Your task to perform on an android device: toggle show notifications on the lock screen Image 0: 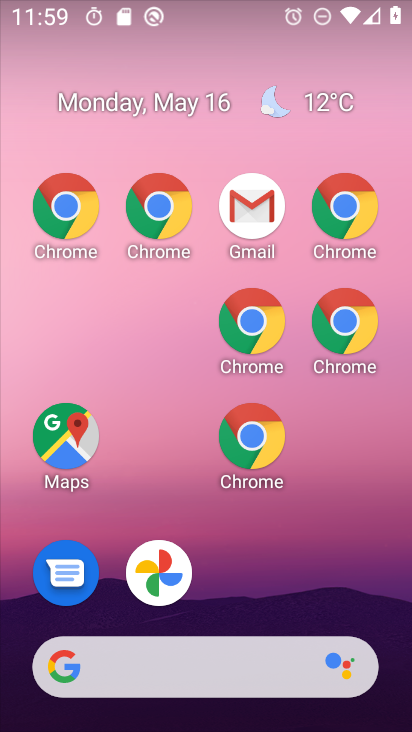
Step 0: drag from (274, 559) to (173, 24)
Your task to perform on an android device: toggle show notifications on the lock screen Image 1: 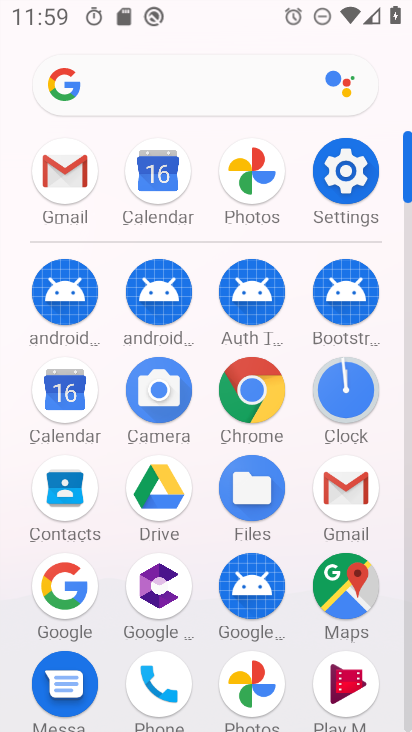
Step 1: click (352, 183)
Your task to perform on an android device: toggle show notifications on the lock screen Image 2: 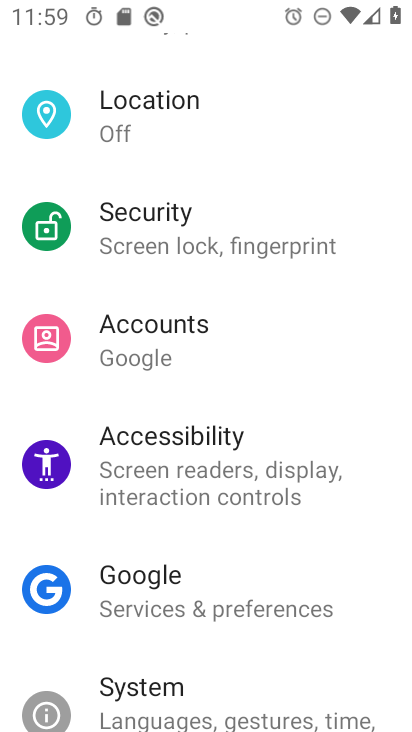
Step 2: drag from (217, 581) to (120, 1)
Your task to perform on an android device: toggle show notifications on the lock screen Image 3: 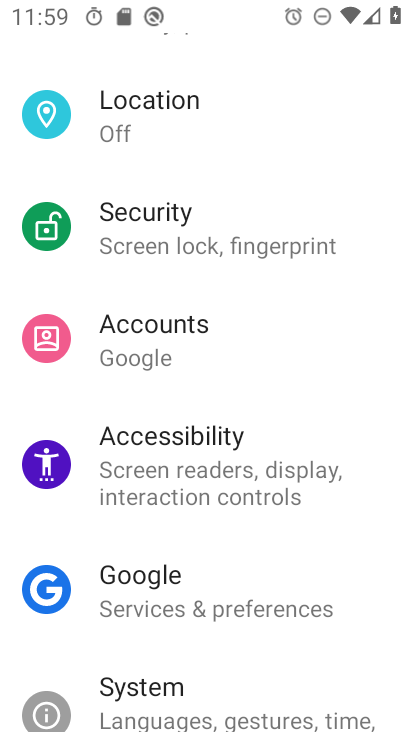
Step 3: drag from (191, 311) to (173, 6)
Your task to perform on an android device: toggle show notifications on the lock screen Image 4: 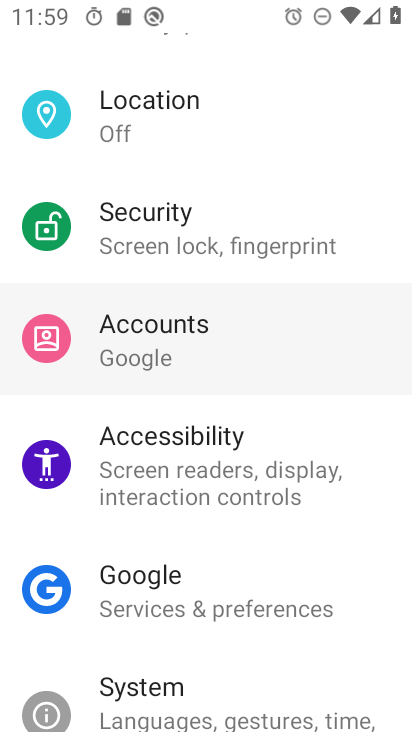
Step 4: drag from (247, 574) to (224, 119)
Your task to perform on an android device: toggle show notifications on the lock screen Image 5: 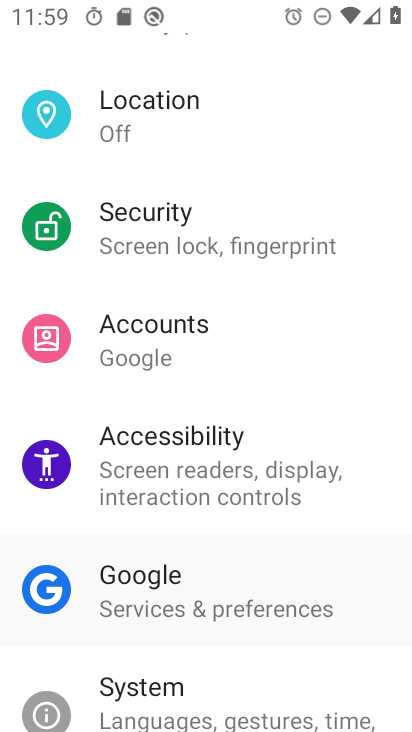
Step 5: drag from (267, 509) to (199, 86)
Your task to perform on an android device: toggle show notifications on the lock screen Image 6: 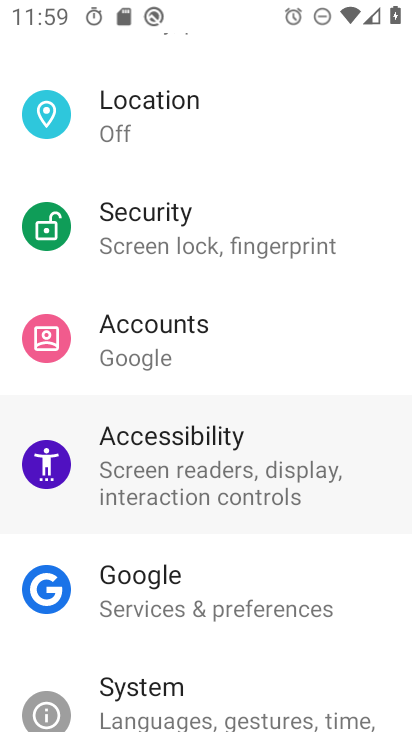
Step 6: drag from (321, 672) to (295, 133)
Your task to perform on an android device: toggle show notifications on the lock screen Image 7: 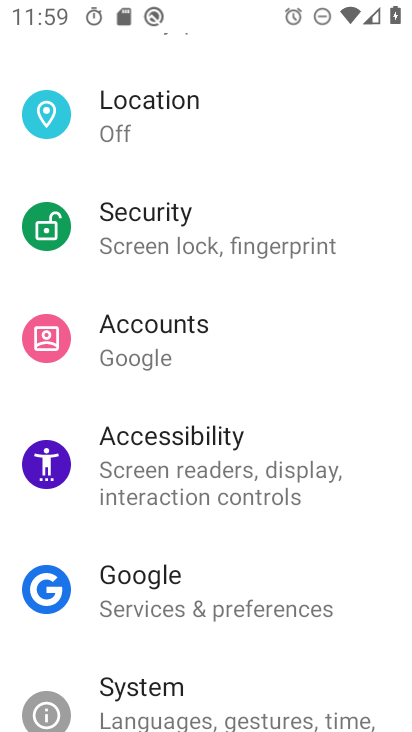
Step 7: drag from (336, 552) to (363, 217)
Your task to perform on an android device: toggle show notifications on the lock screen Image 8: 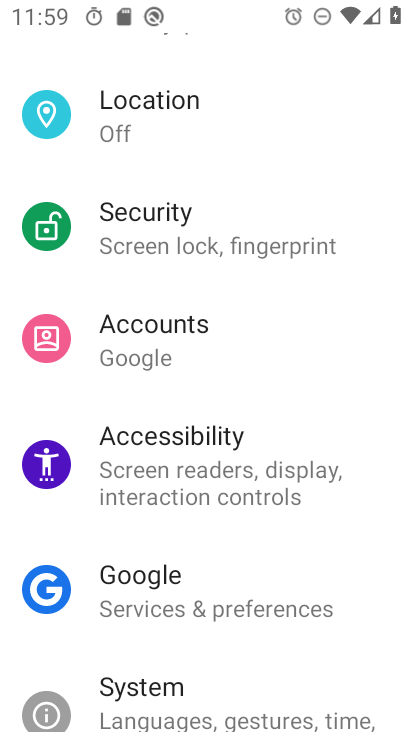
Step 8: drag from (281, 543) to (223, 183)
Your task to perform on an android device: toggle show notifications on the lock screen Image 9: 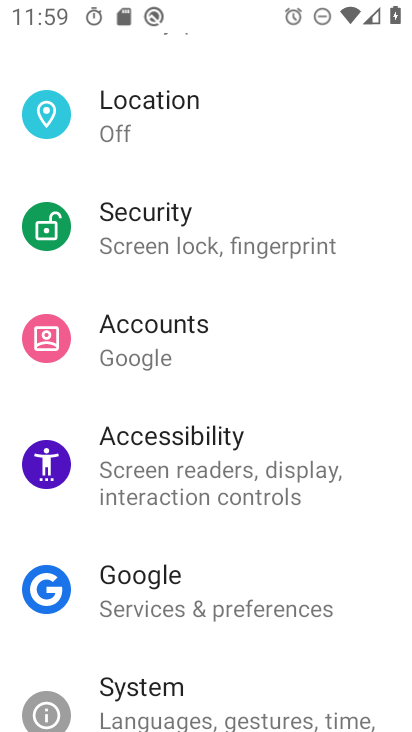
Step 9: drag from (196, 173) to (226, 522)
Your task to perform on an android device: toggle show notifications on the lock screen Image 10: 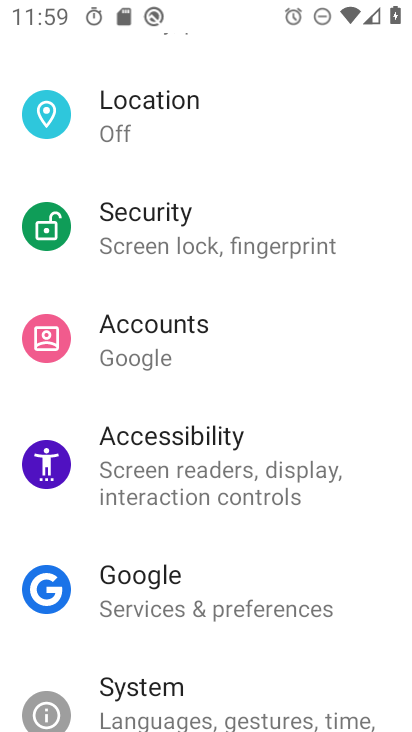
Step 10: drag from (138, 244) to (209, 595)
Your task to perform on an android device: toggle show notifications on the lock screen Image 11: 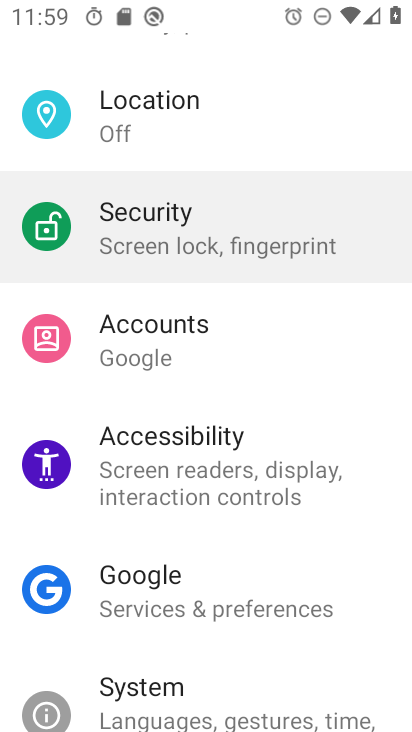
Step 11: drag from (163, 213) to (220, 400)
Your task to perform on an android device: toggle show notifications on the lock screen Image 12: 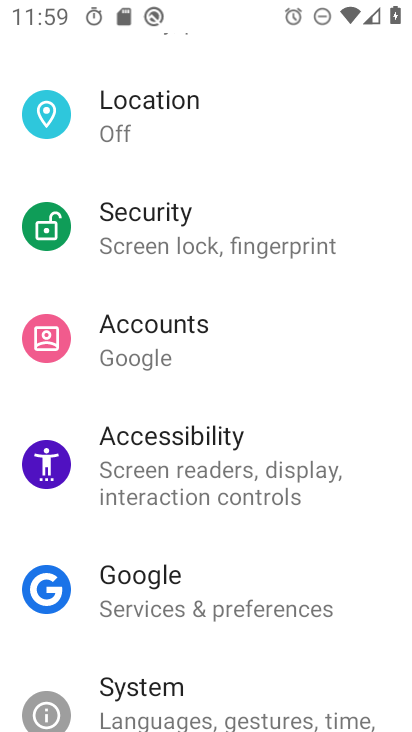
Step 12: drag from (157, 137) to (190, 466)
Your task to perform on an android device: toggle show notifications on the lock screen Image 13: 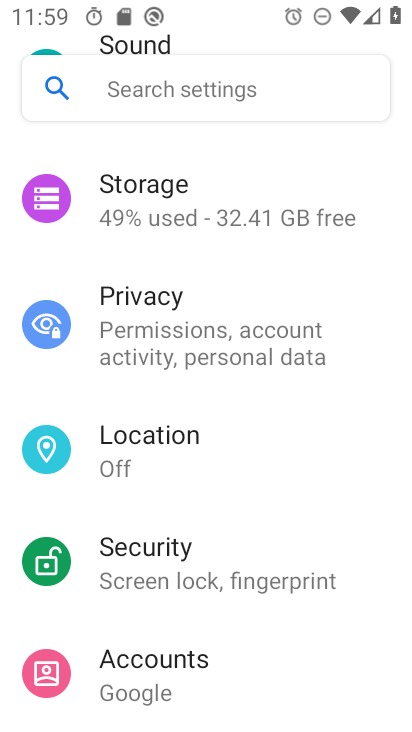
Step 13: drag from (208, 207) to (230, 573)
Your task to perform on an android device: toggle show notifications on the lock screen Image 14: 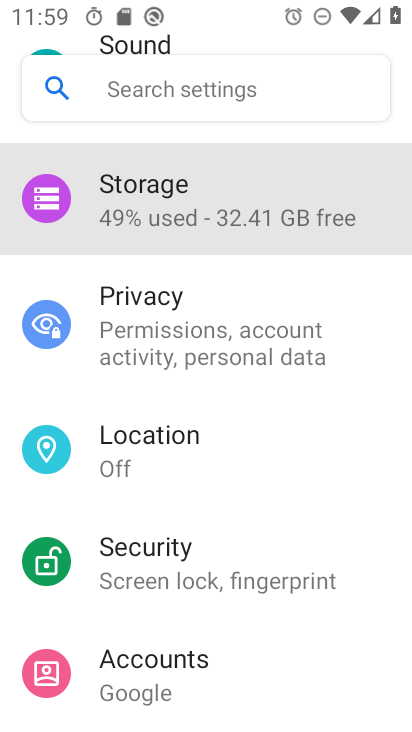
Step 14: drag from (65, 160) to (168, 438)
Your task to perform on an android device: toggle show notifications on the lock screen Image 15: 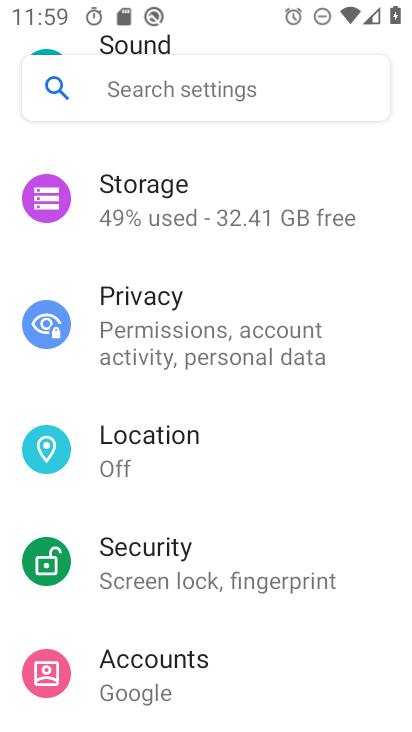
Step 15: drag from (133, 260) to (261, 443)
Your task to perform on an android device: toggle show notifications on the lock screen Image 16: 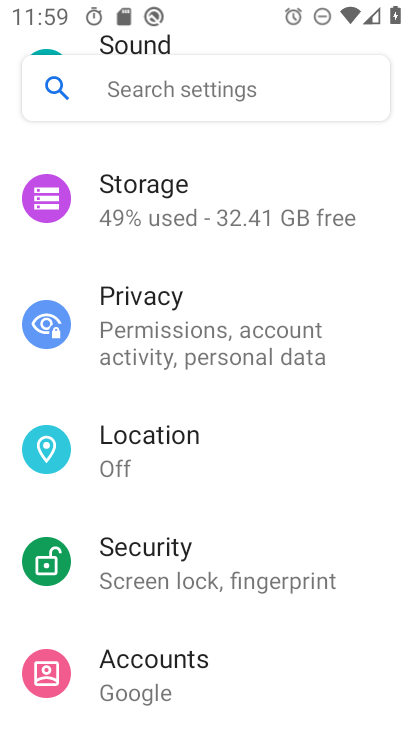
Step 16: drag from (217, 208) to (294, 468)
Your task to perform on an android device: toggle show notifications on the lock screen Image 17: 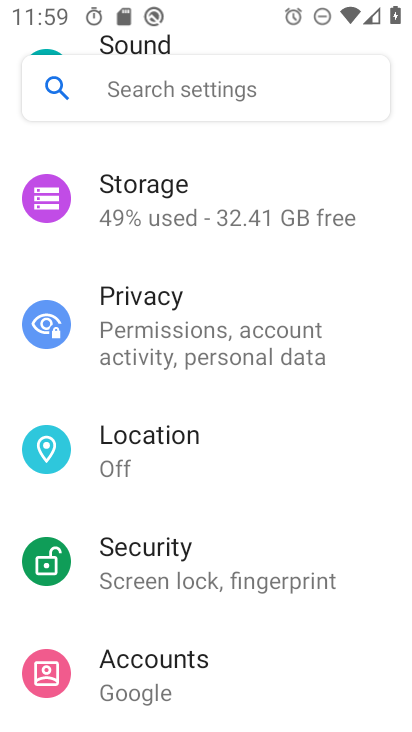
Step 17: drag from (199, 217) to (285, 465)
Your task to perform on an android device: toggle show notifications on the lock screen Image 18: 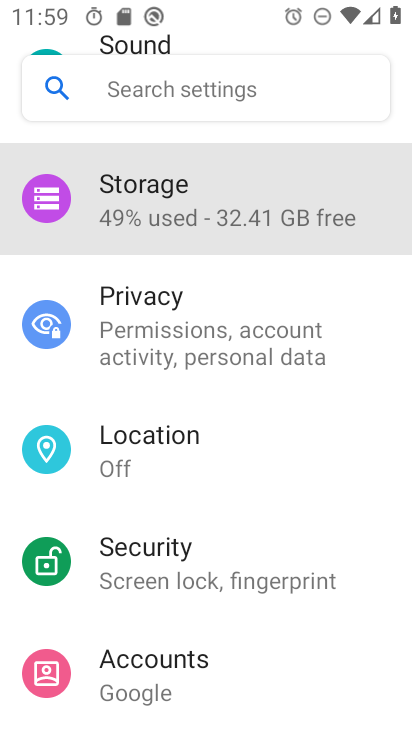
Step 18: drag from (176, 196) to (224, 481)
Your task to perform on an android device: toggle show notifications on the lock screen Image 19: 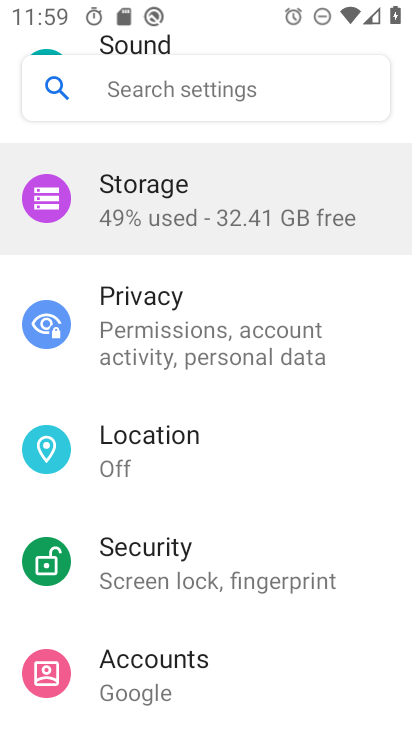
Step 19: drag from (200, 290) to (192, 485)
Your task to perform on an android device: toggle show notifications on the lock screen Image 20: 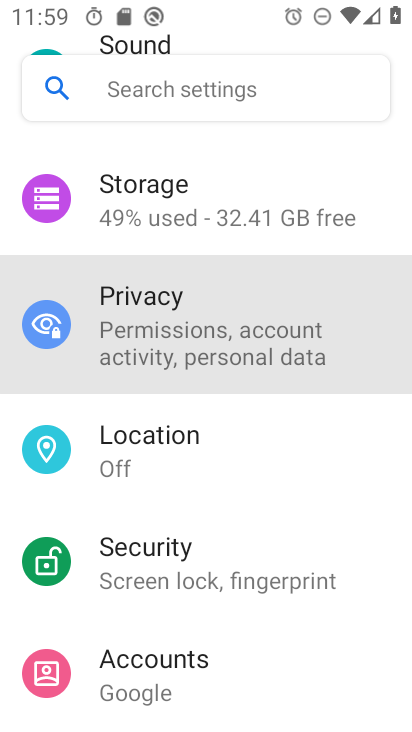
Step 20: drag from (130, 279) to (241, 538)
Your task to perform on an android device: toggle show notifications on the lock screen Image 21: 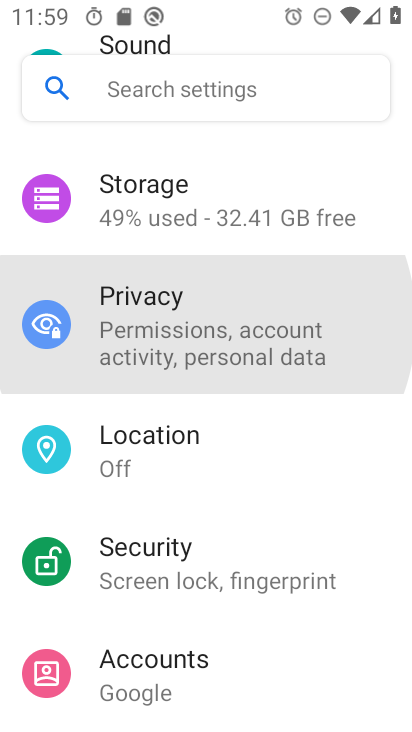
Step 21: drag from (218, 308) to (279, 410)
Your task to perform on an android device: toggle show notifications on the lock screen Image 22: 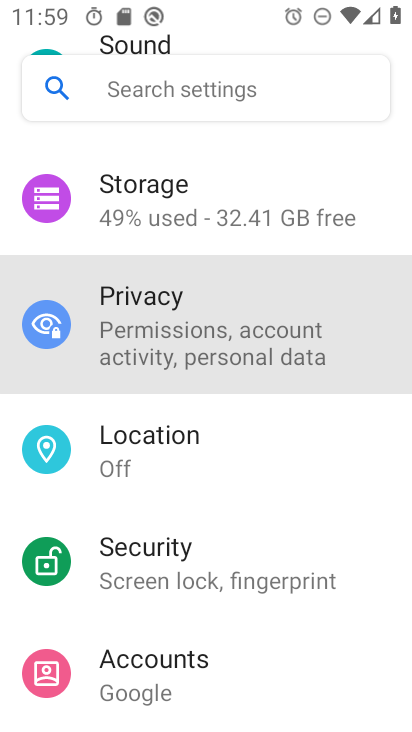
Step 22: drag from (223, 242) to (285, 511)
Your task to perform on an android device: toggle show notifications on the lock screen Image 23: 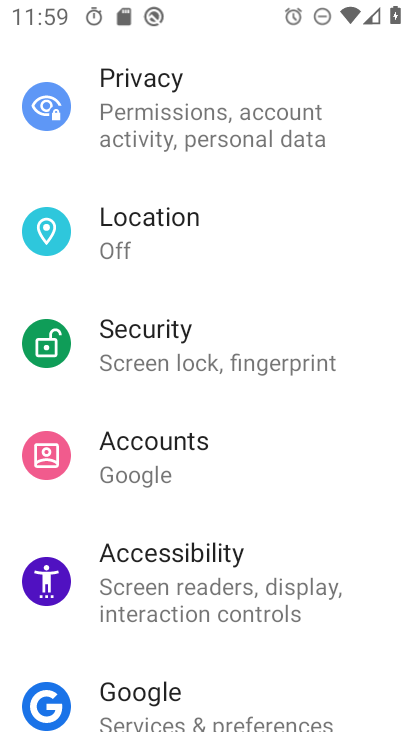
Step 23: drag from (229, 269) to (255, 717)
Your task to perform on an android device: toggle show notifications on the lock screen Image 24: 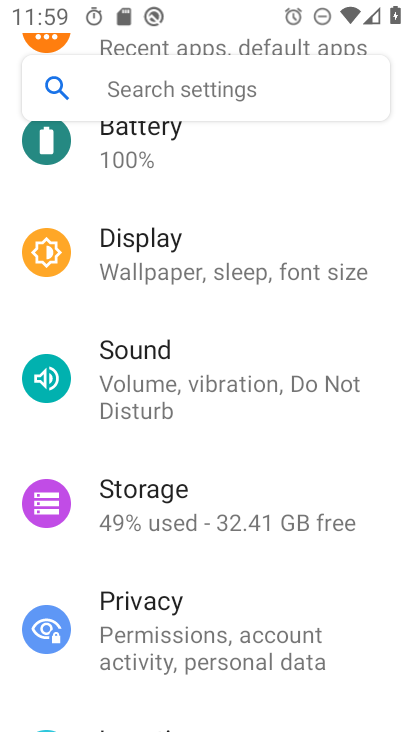
Step 24: drag from (186, 233) to (266, 497)
Your task to perform on an android device: toggle show notifications on the lock screen Image 25: 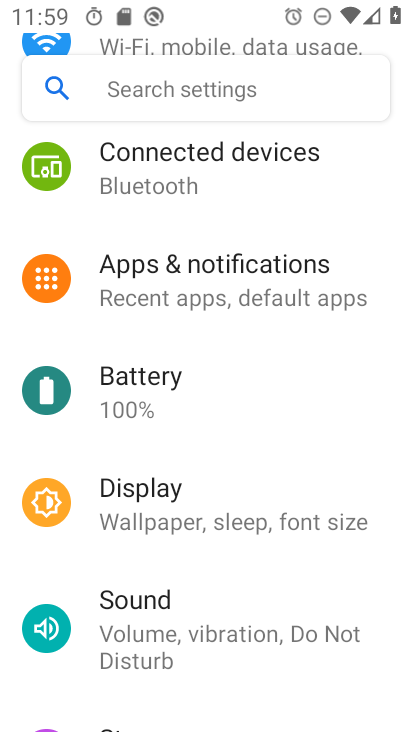
Step 25: drag from (184, 230) to (267, 504)
Your task to perform on an android device: toggle show notifications on the lock screen Image 26: 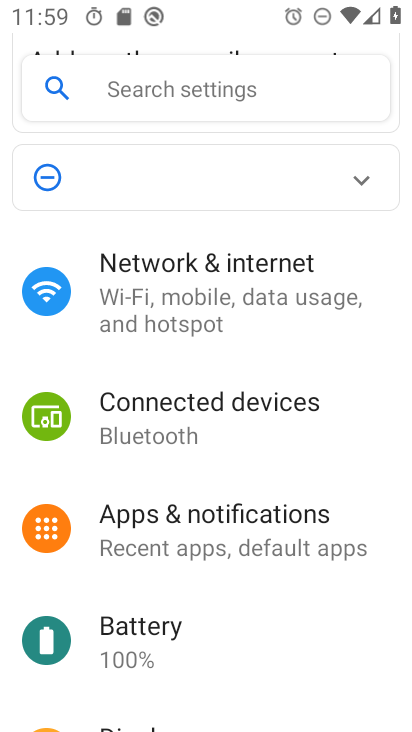
Step 26: click (261, 522)
Your task to perform on an android device: toggle show notifications on the lock screen Image 27: 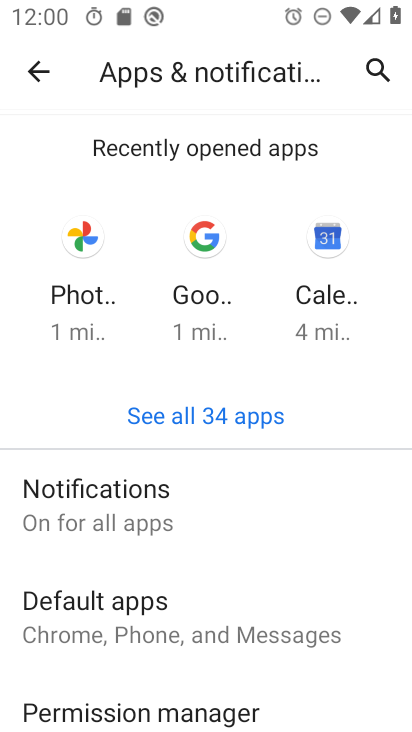
Step 27: click (55, 489)
Your task to perform on an android device: toggle show notifications on the lock screen Image 28: 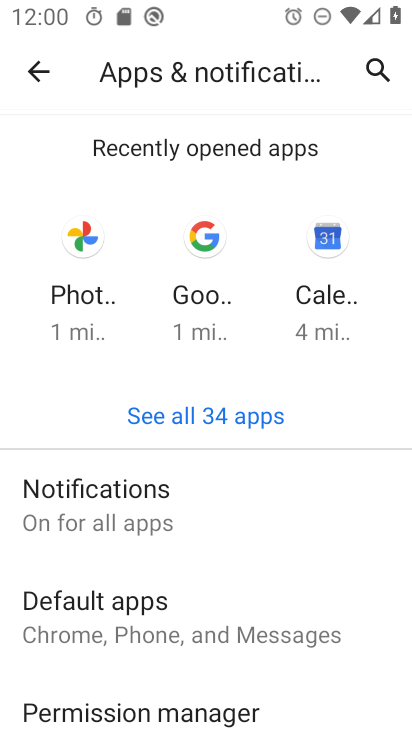
Step 28: click (55, 487)
Your task to perform on an android device: toggle show notifications on the lock screen Image 29: 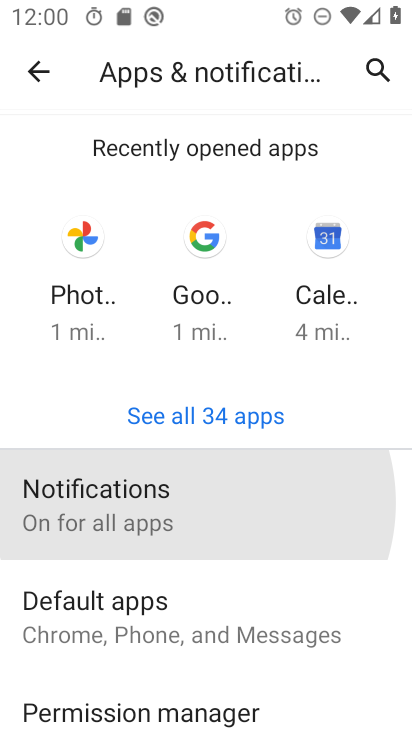
Step 29: click (56, 482)
Your task to perform on an android device: toggle show notifications on the lock screen Image 30: 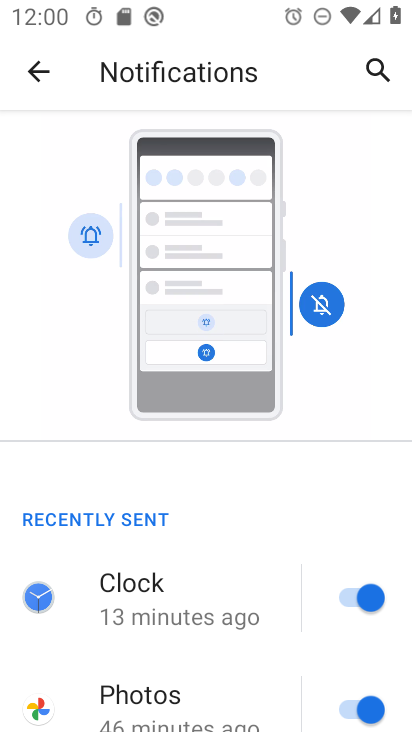
Step 30: drag from (225, 583) to (240, 250)
Your task to perform on an android device: toggle show notifications on the lock screen Image 31: 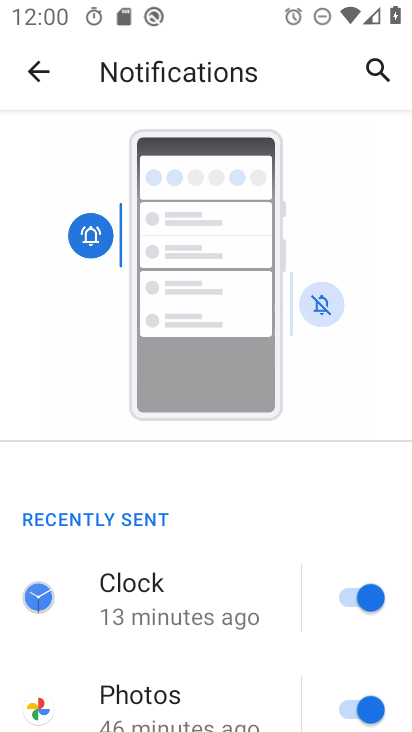
Step 31: drag from (308, 562) to (279, 239)
Your task to perform on an android device: toggle show notifications on the lock screen Image 32: 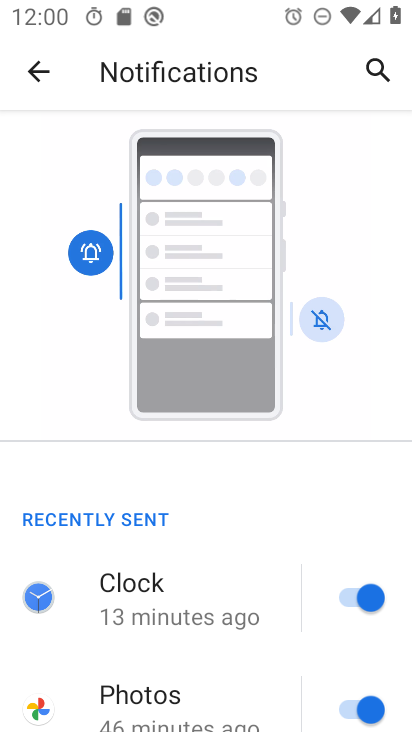
Step 32: drag from (267, 560) to (297, 70)
Your task to perform on an android device: toggle show notifications on the lock screen Image 33: 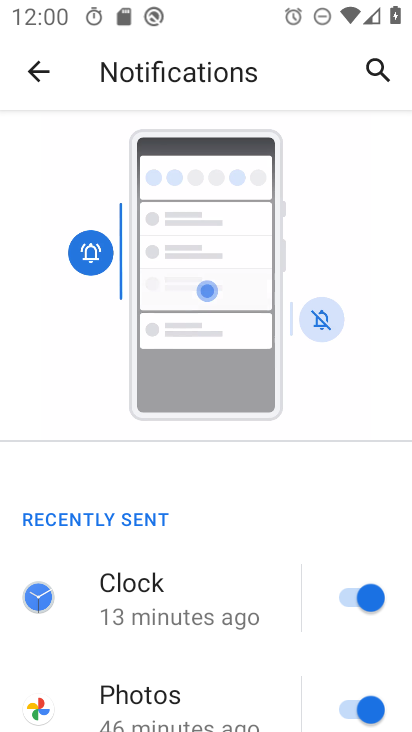
Step 33: drag from (281, 589) to (258, 198)
Your task to perform on an android device: toggle show notifications on the lock screen Image 34: 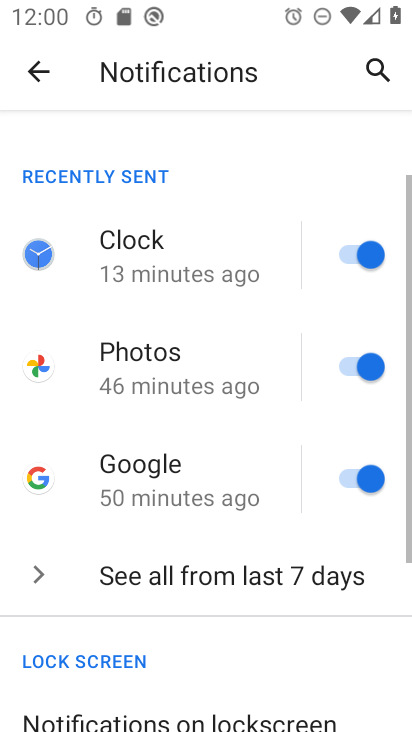
Step 34: drag from (211, 667) to (190, 241)
Your task to perform on an android device: toggle show notifications on the lock screen Image 35: 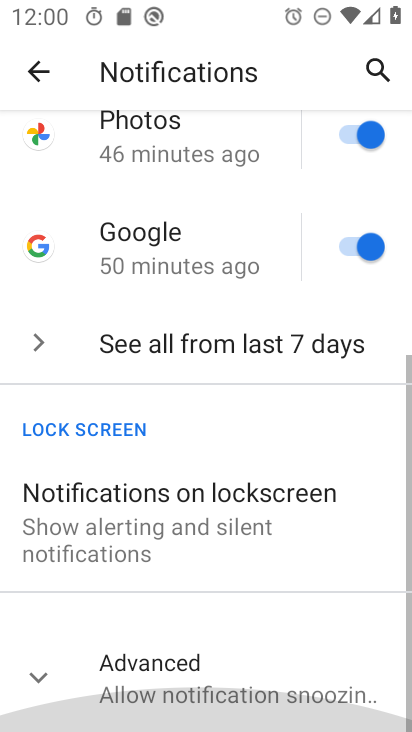
Step 35: drag from (269, 560) to (216, 74)
Your task to perform on an android device: toggle show notifications on the lock screen Image 36: 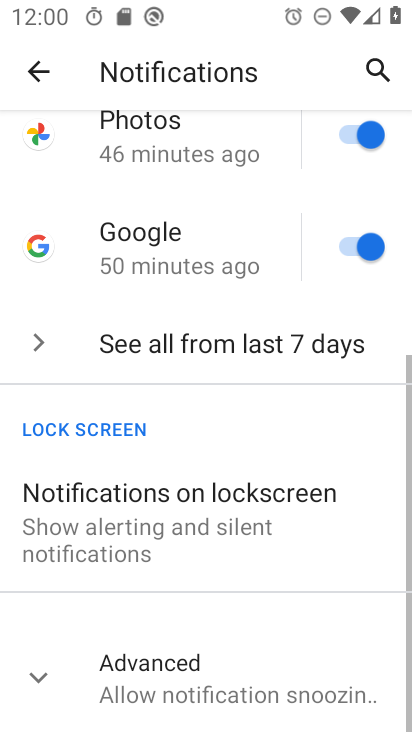
Step 36: drag from (258, 614) to (243, 178)
Your task to perform on an android device: toggle show notifications on the lock screen Image 37: 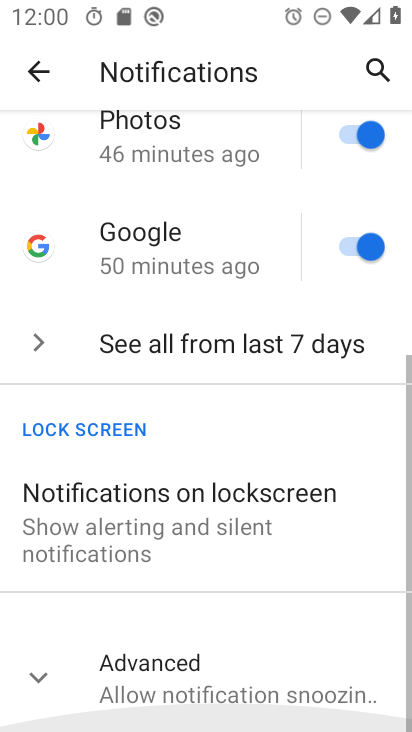
Step 37: click (171, 500)
Your task to perform on an android device: toggle show notifications on the lock screen Image 38: 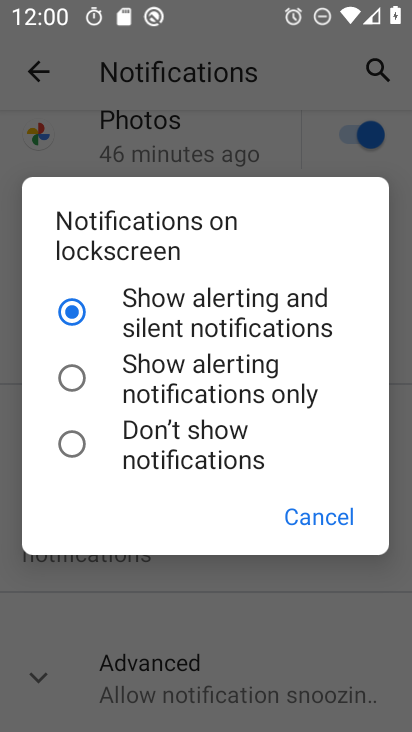
Step 38: click (66, 376)
Your task to perform on an android device: toggle show notifications on the lock screen Image 39: 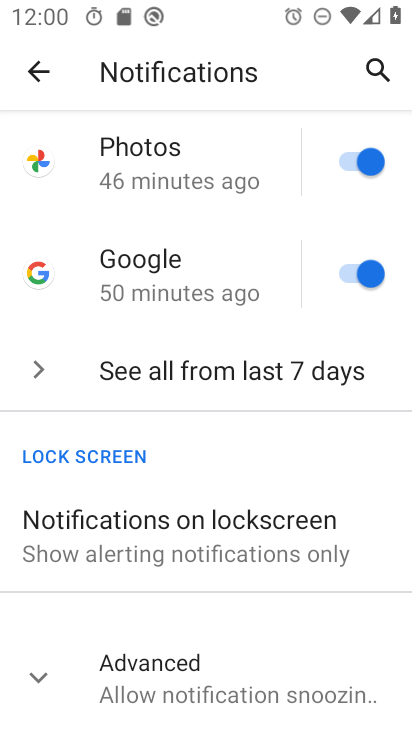
Step 39: task complete